Your task to perform on an android device: turn off airplane mode Image 0: 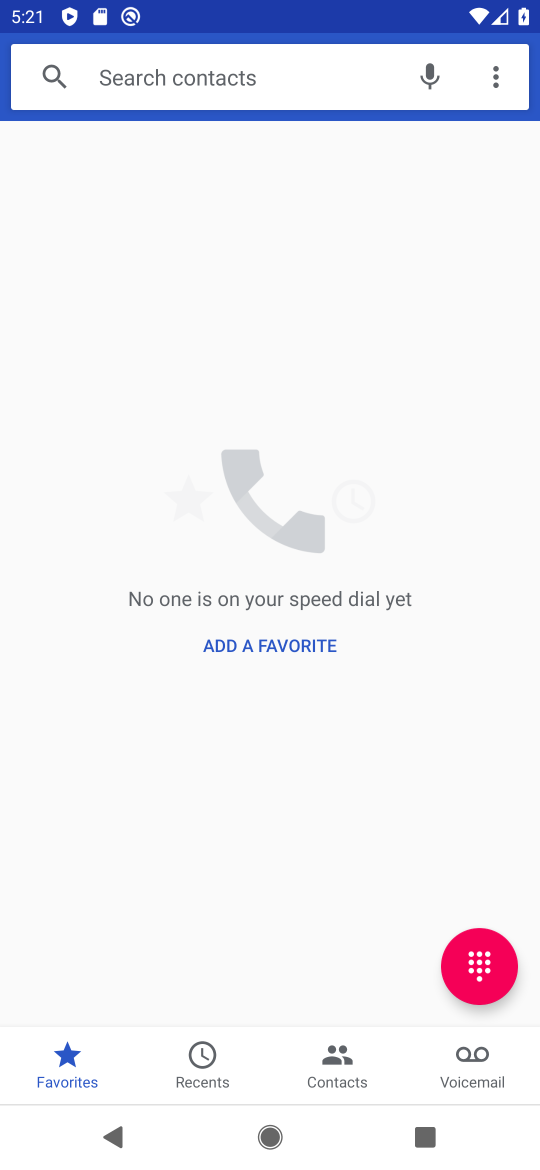
Step 0: press home button
Your task to perform on an android device: turn off airplane mode Image 1: 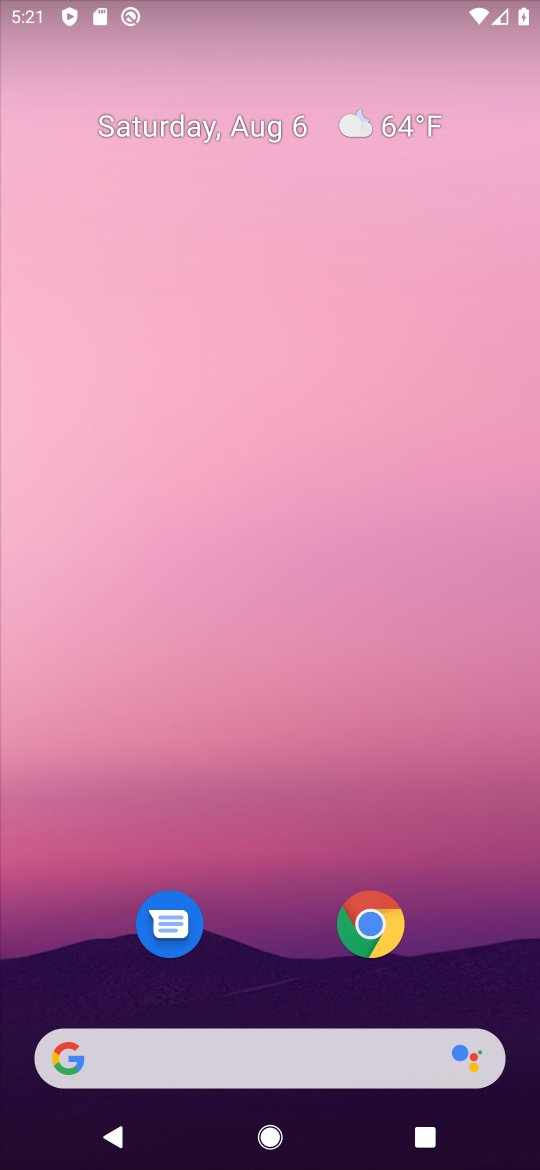
Step 1: drag from (323, 839) to (221, 4)
Your task to perform on an android device: turn off airplane mode Image 2: 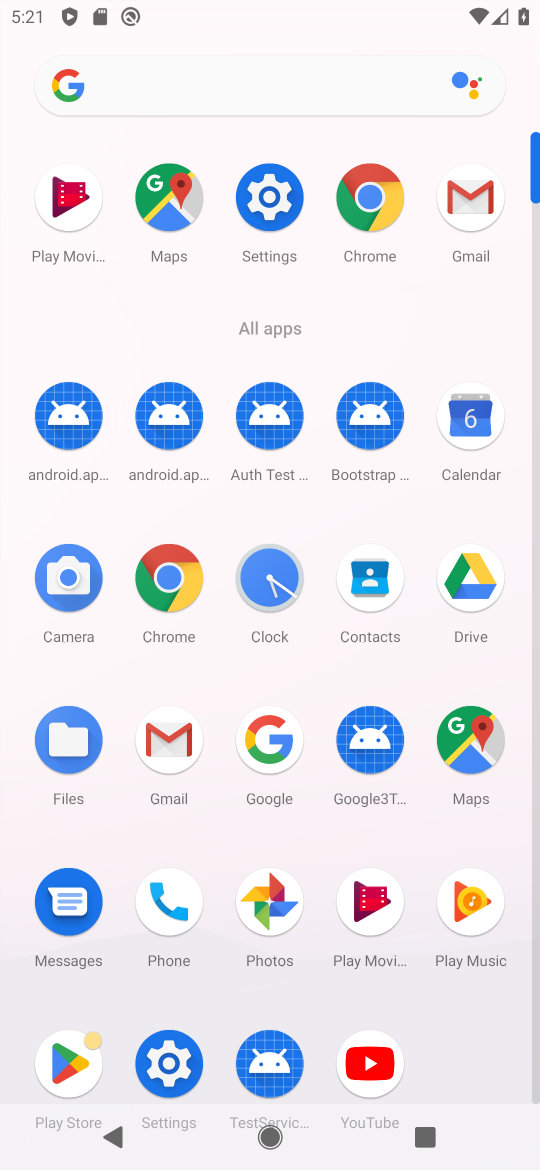
Step 2: click (263, 193)
Your task to perform on an android device: turn off airplane mode Image 3: 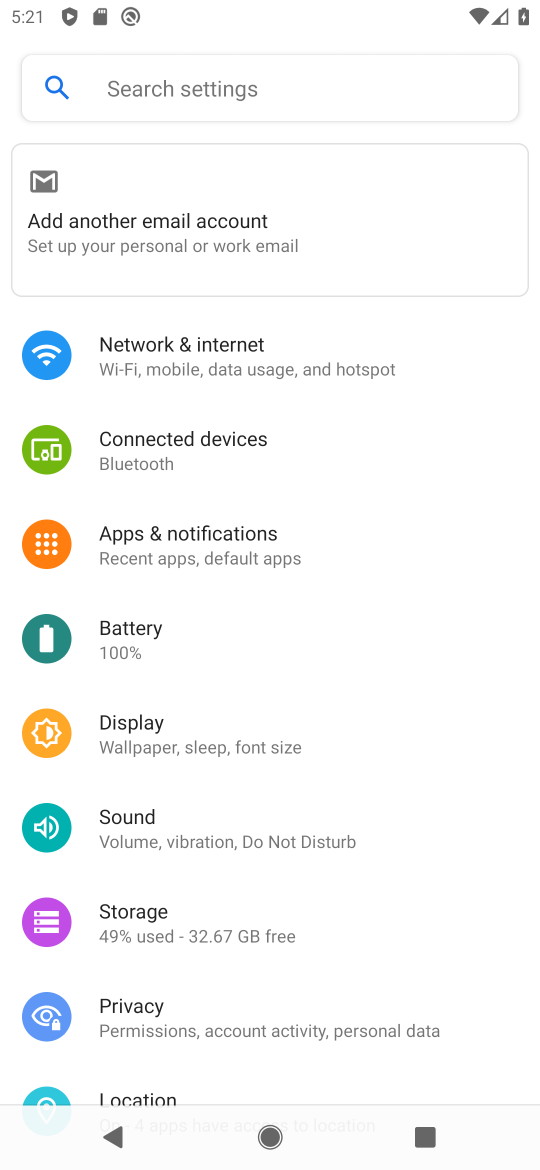
Step 3: click (180, 333)
Your task to perform on an android device: turn off airplane mode Image 4: 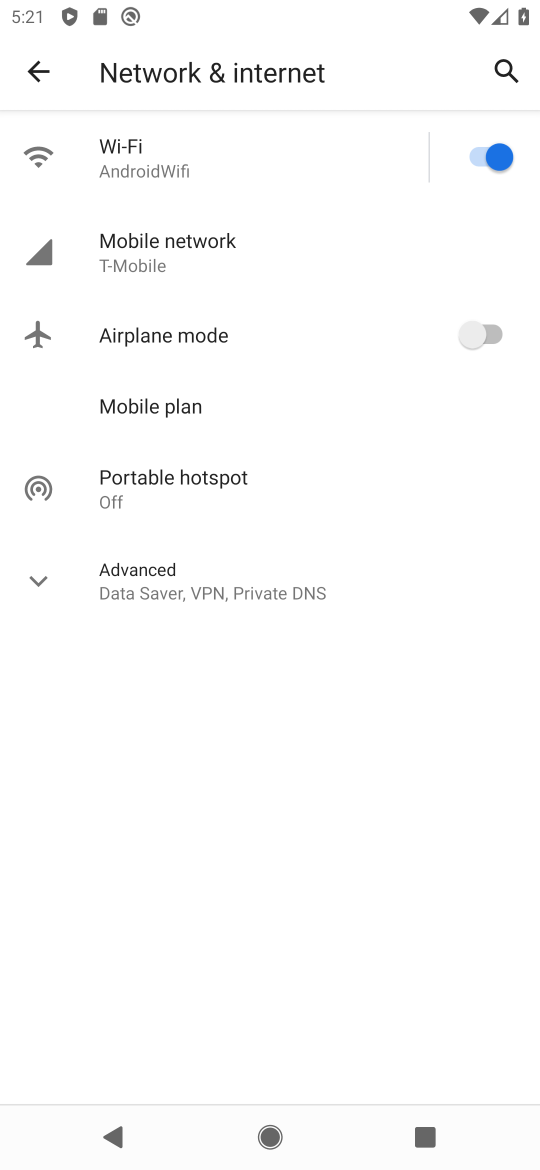
Step 4: task complete